Your task to perform on an android device: toggle show notifications on the lock screen Image 0: 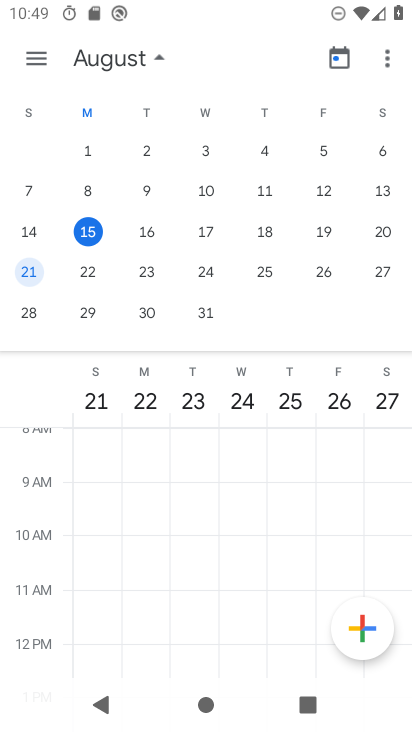
Step 0: press home button
Your task to perform on an android device: toggle show notifications on the lock screen Image 1: 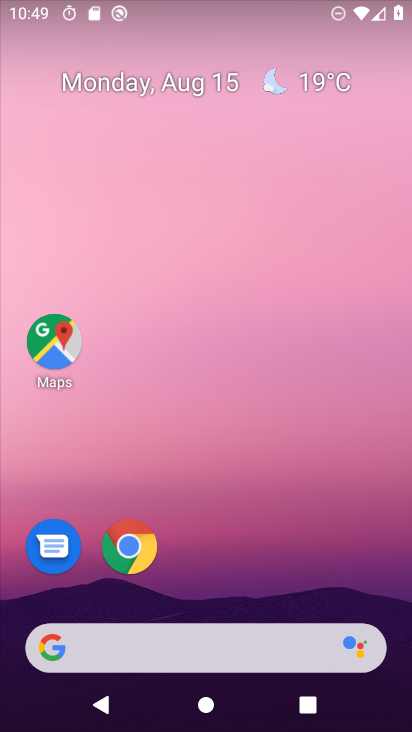
Step 1: drag from (201, 603) to (199, 16)
Your task to perform on an android device: toggle show notifications on the lock screen Image 2: 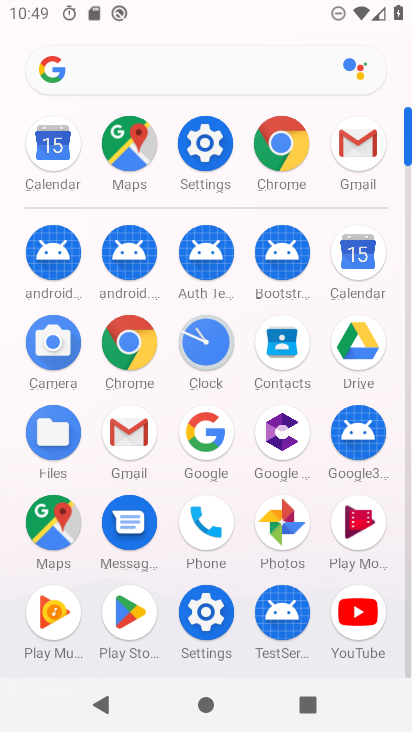
Step 2: click (200, 140)
Your task to perform on an android device: toggle show notifications on the lock screen Image 3: 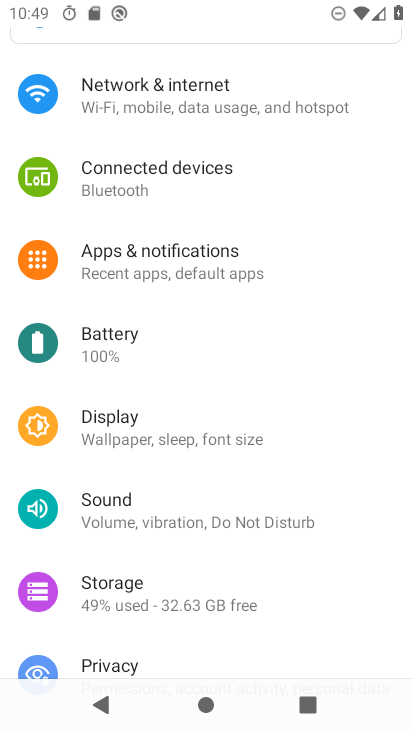
Step 3: click (149, 263)
Your task to perform on an android device: toggle show notifications on the lock screen Image 4: 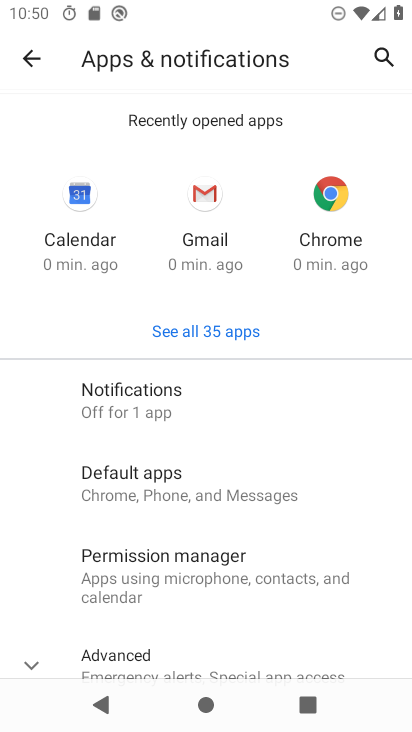
Step 4: click (124, 399)
Your task to perform on an android device: toggle show notifications on the lock screen Image 5: 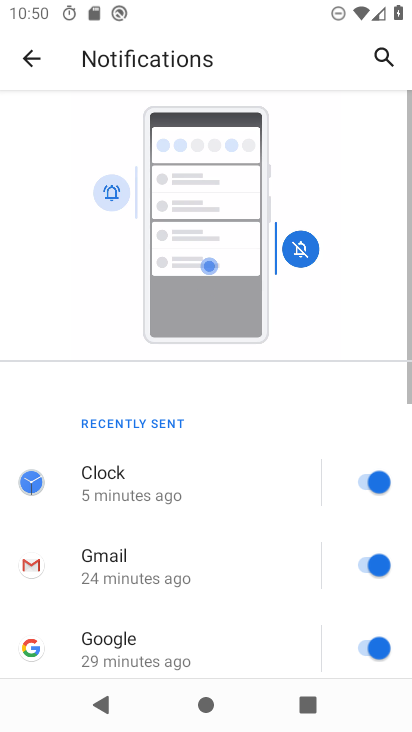
Step 5: drag from (186, 617) to (163, 305)
Your task to perform on an android device: toggle show notifications on the lock screen Image 6: 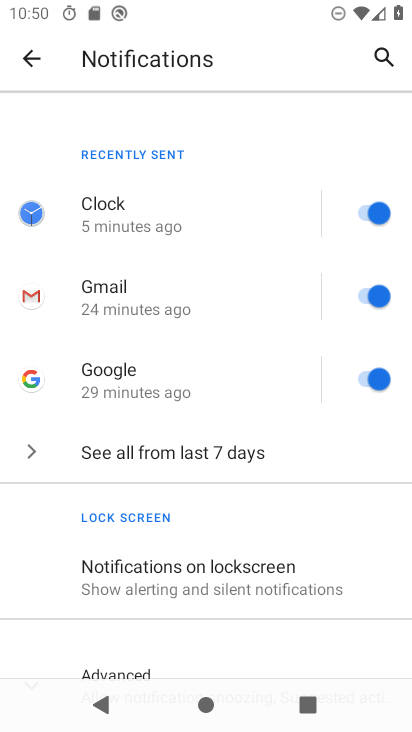
Step 6: click (204, 576)
Your task to perform on an android device: toggle show notifications on the lock screen Image 7: 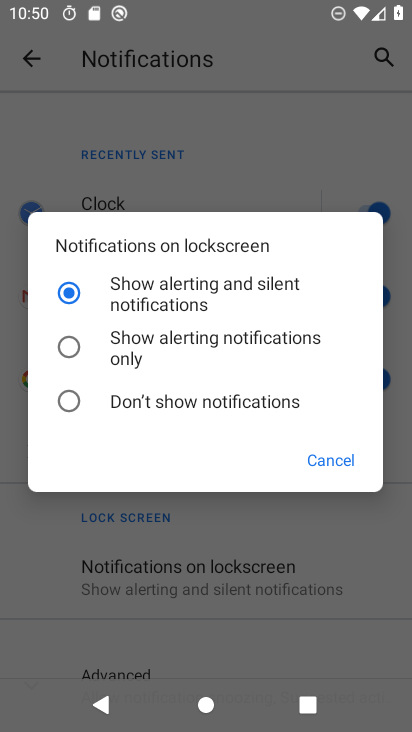
Step 7: click (65, 349)
Your task to perform on an android device: toggle show notifications on the lock screen Image 8: 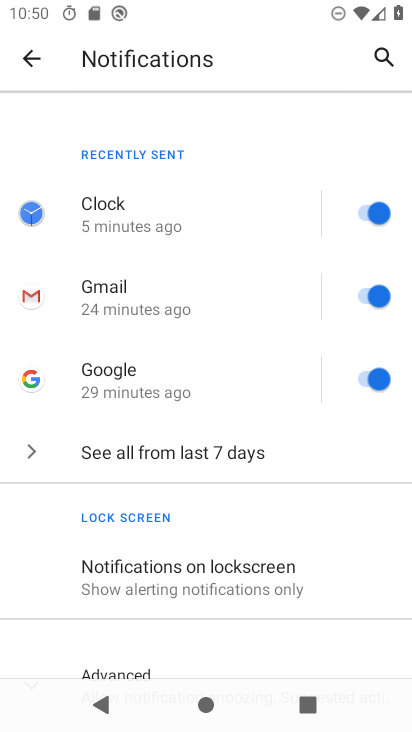
Step 8: task complete